Your task to perform on an android device: Go to calendar. Show me events next week Image 0: 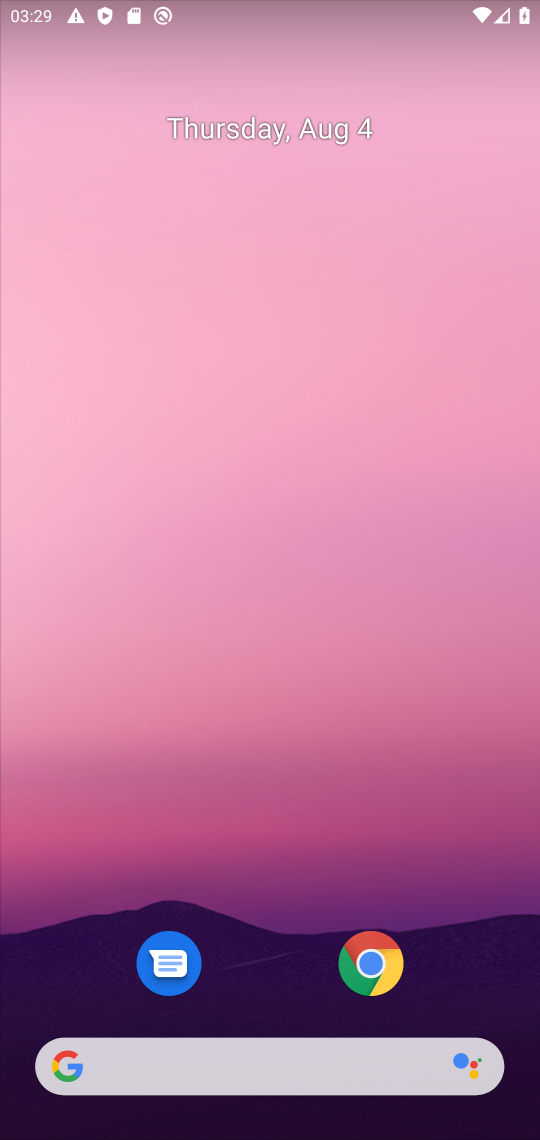
Step 0: drag from (296, 935) to (327, 96)
Your task to perform on an android device: Go to calendar. Show me events next week Image 1: 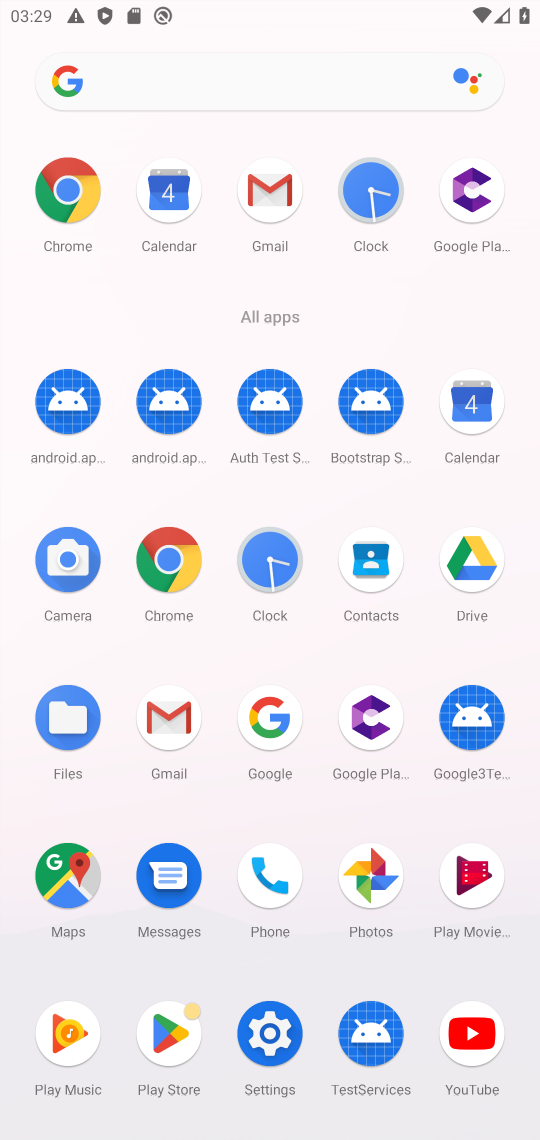
Step 1: click (176, 193)
Your task to perform on an android device: Go to calendar. Show me events next week Image 2: 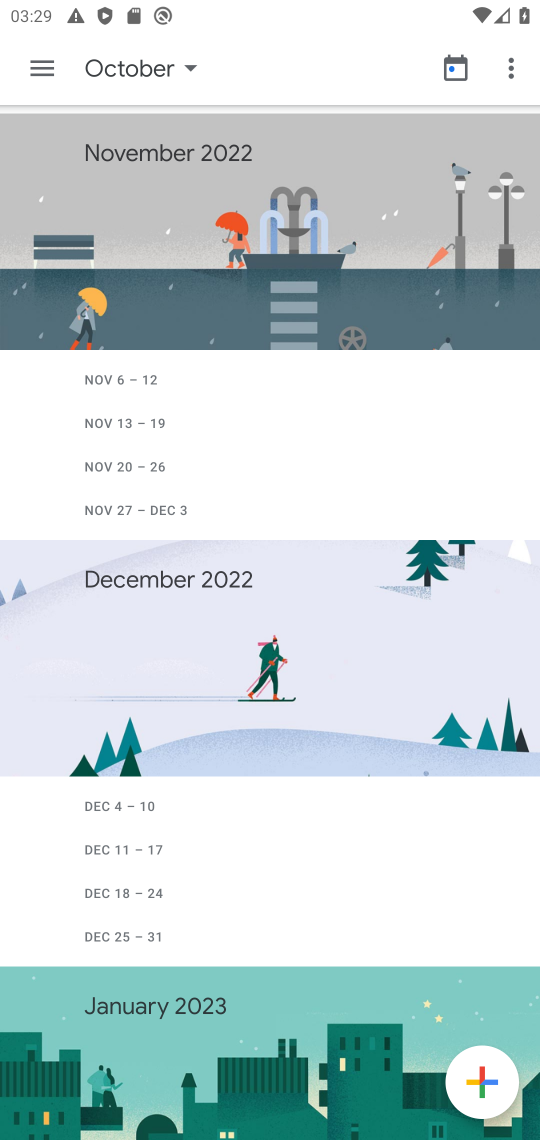
Step 2: click (461, 76)
Your task to perform on an android device: Go to calendar. Show me events next week Image 3: 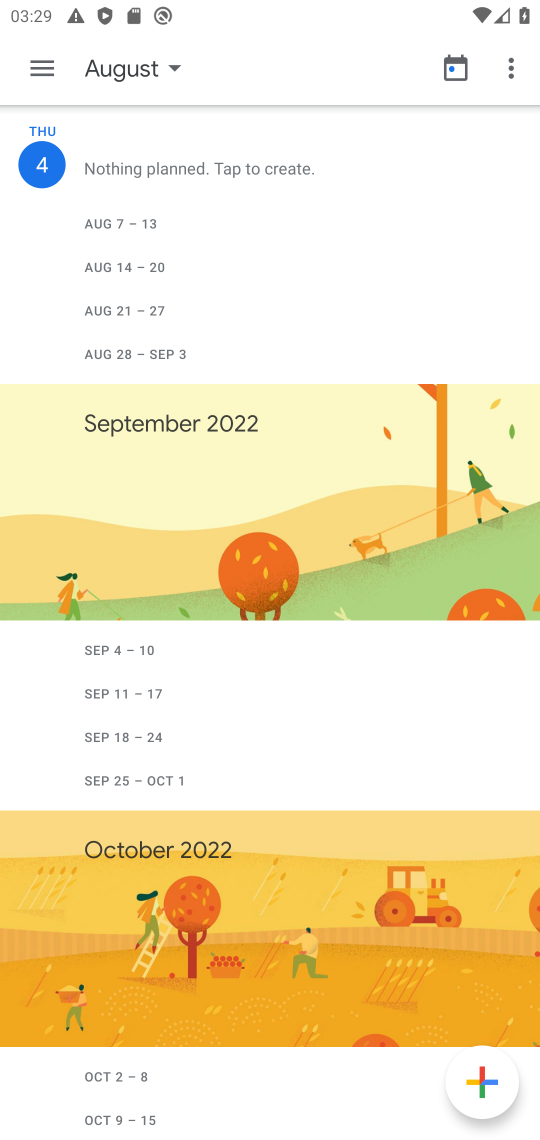
Step 3: click (35, 77)
Your task to perform on an android device: Go to calendar. Show me events next week Image 4: 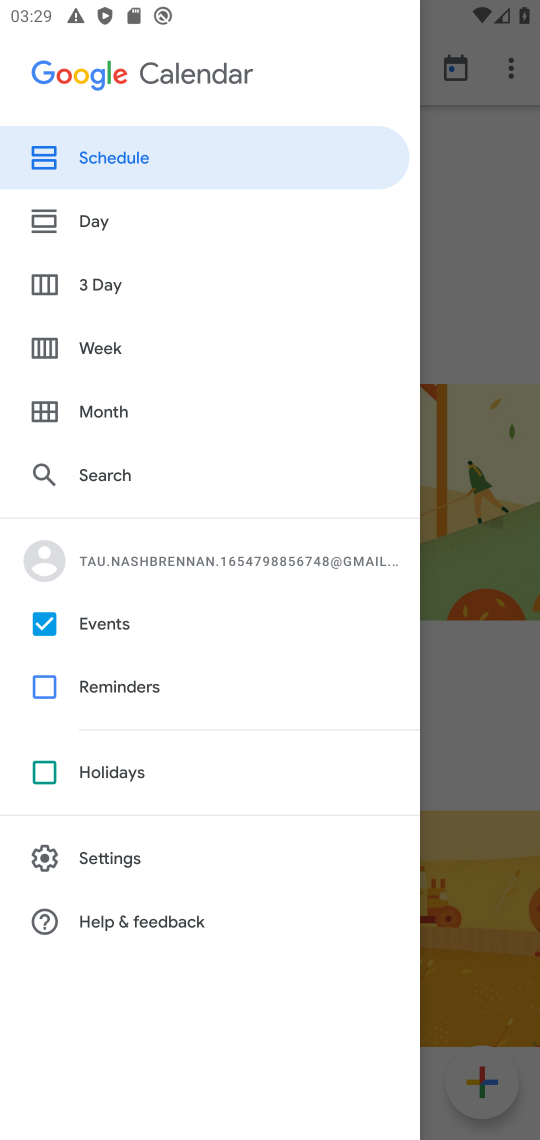
Step 4: click (56, 346)
Your task to perform on an android device: Go to calendar. Show me events next week Image 5: 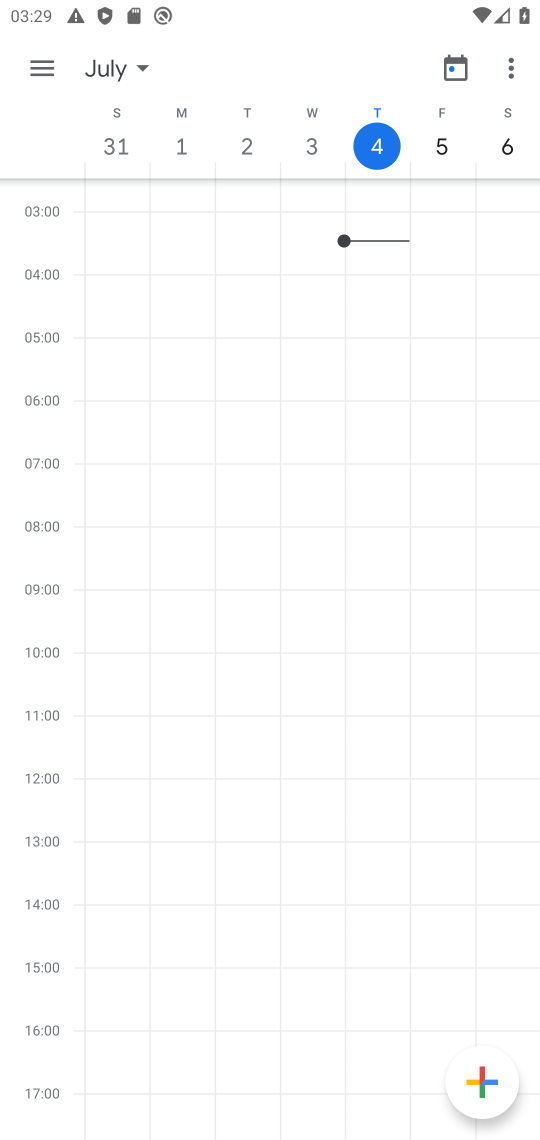
Step 5: task complete